Your task to perform on an android device: toggle notifications settings in the gmail app Image 0: 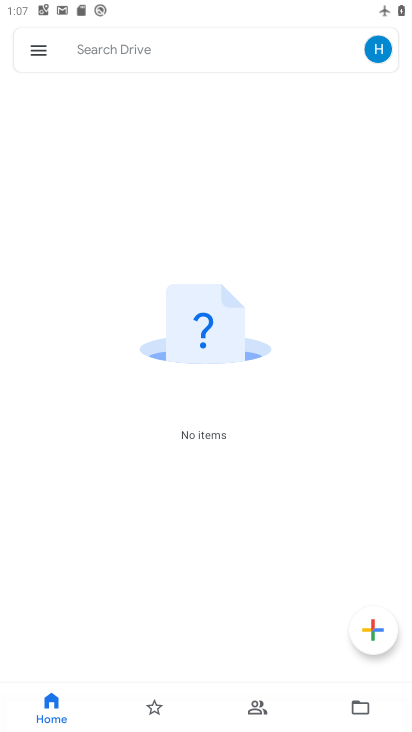
Step 0: click (41, 58)
Your task to perform on an android device: toggle notifications settings in the gmail app Image 1: 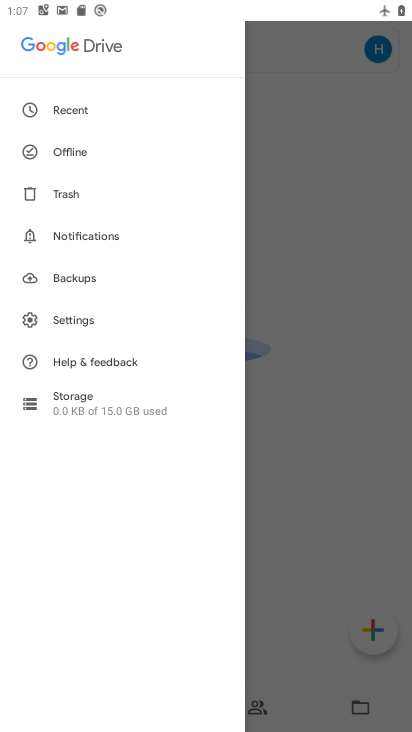
Step 1: click (93, 320)
Your task to perform on an android device: toggle notifications settings in the gmail app Image 2: 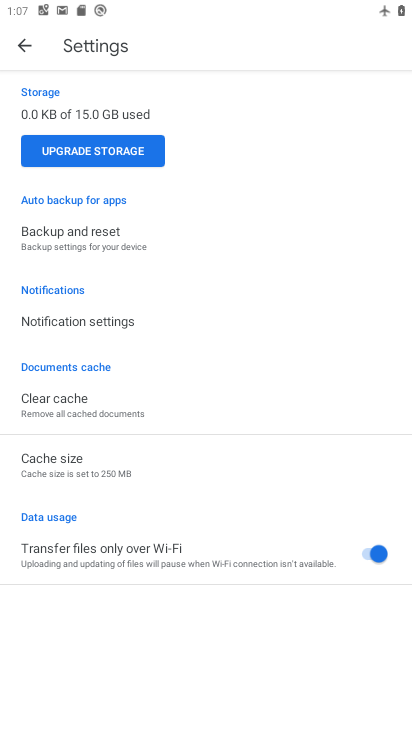
Step 2: click (99, 315)
Your task to perform on an android device: toggle notifications settings in the gmail app Image 3: 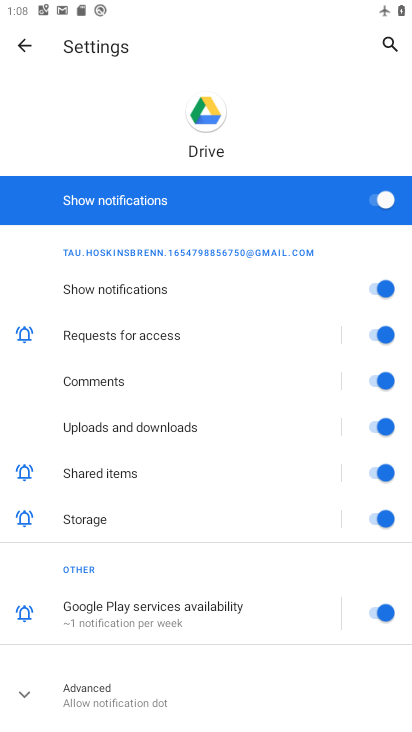
Step 3: drag from (260, 582) to (315, 235)
Your task to perform on an android device: toggle notifications settings in the gmail app Image 4: 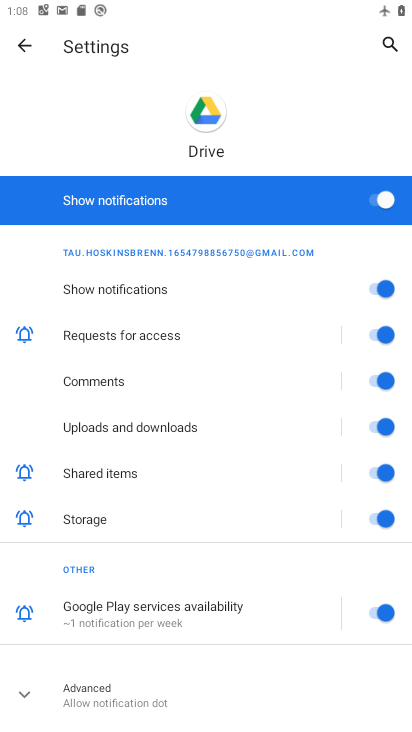
Step 4: click (355, 208)
Your task to perform on an android device: toggle notifications settings in the gmail app Image 5: 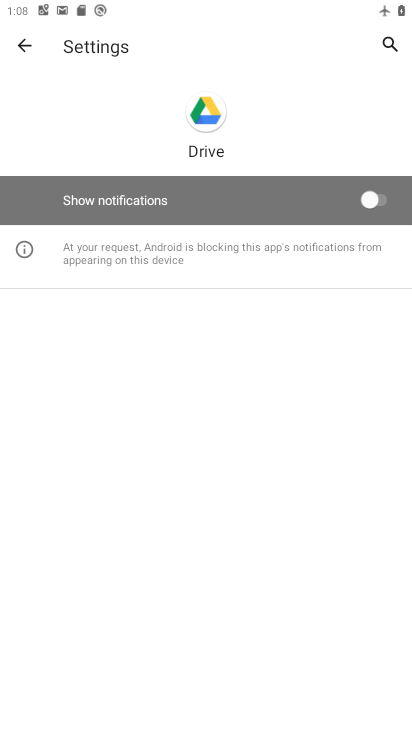
Step 5: task complete